Your task to perform on an android device: Open Google Maps Image 0: 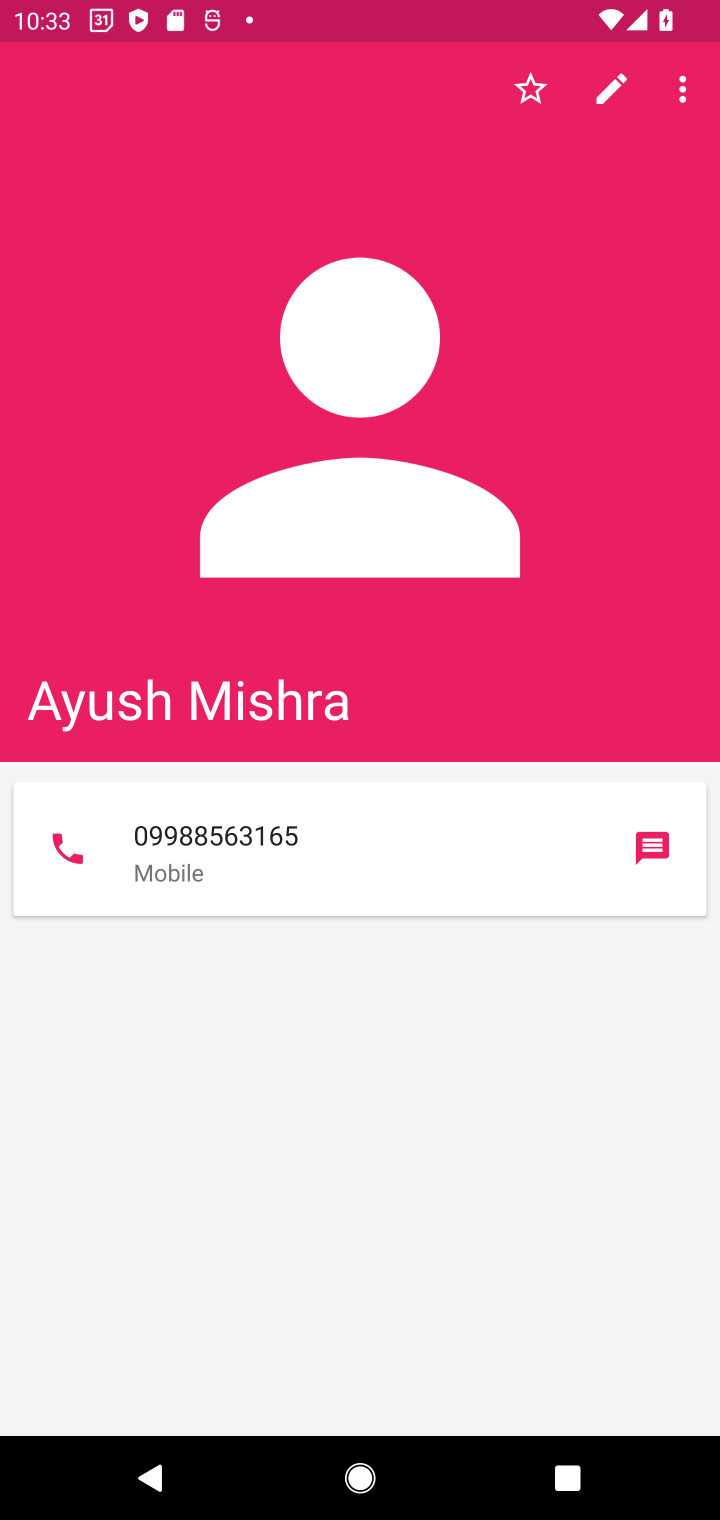
Step 0: press home button
Your task to perform on an android device: Open Google Maps Image 1: 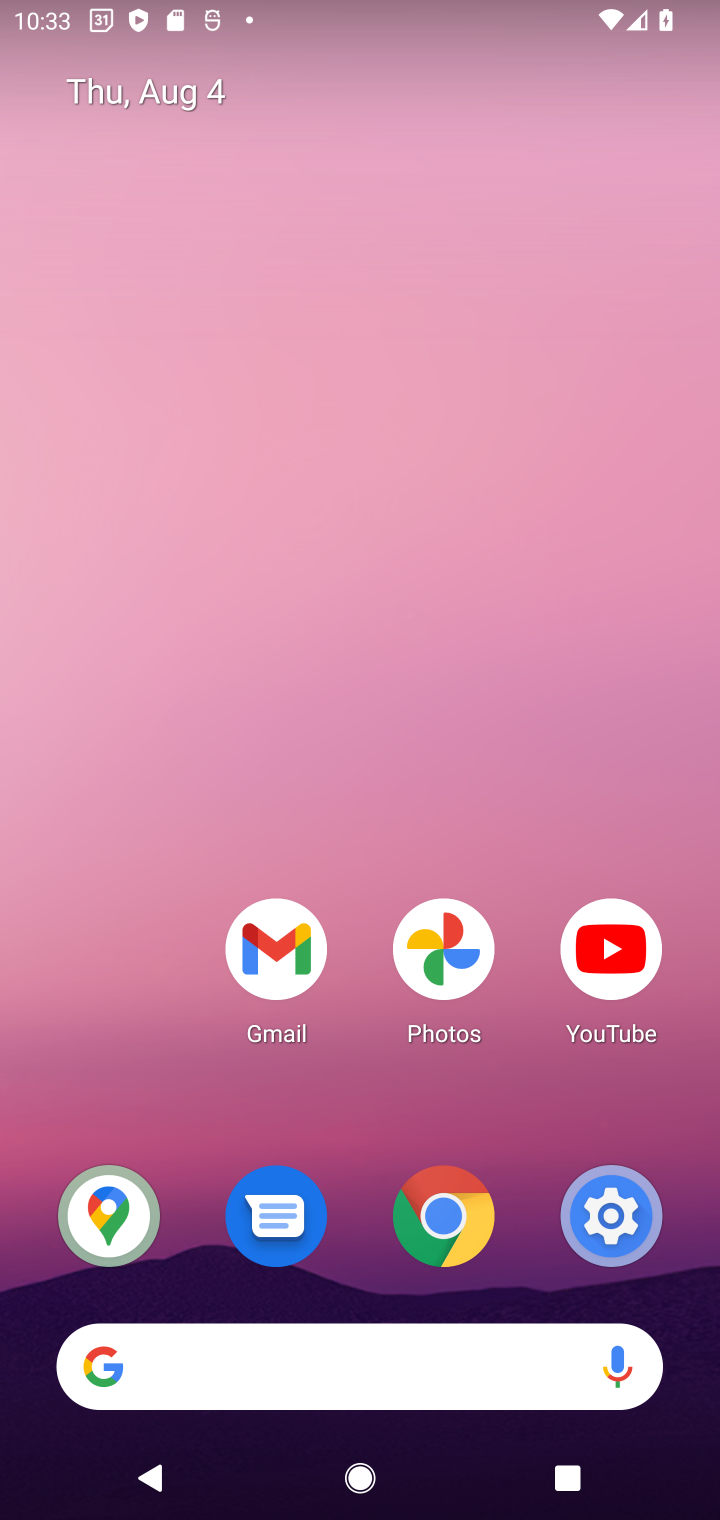
Step 1: click (106, 1204)
Your task to perform on an android device: Open Google Maps Image 2: 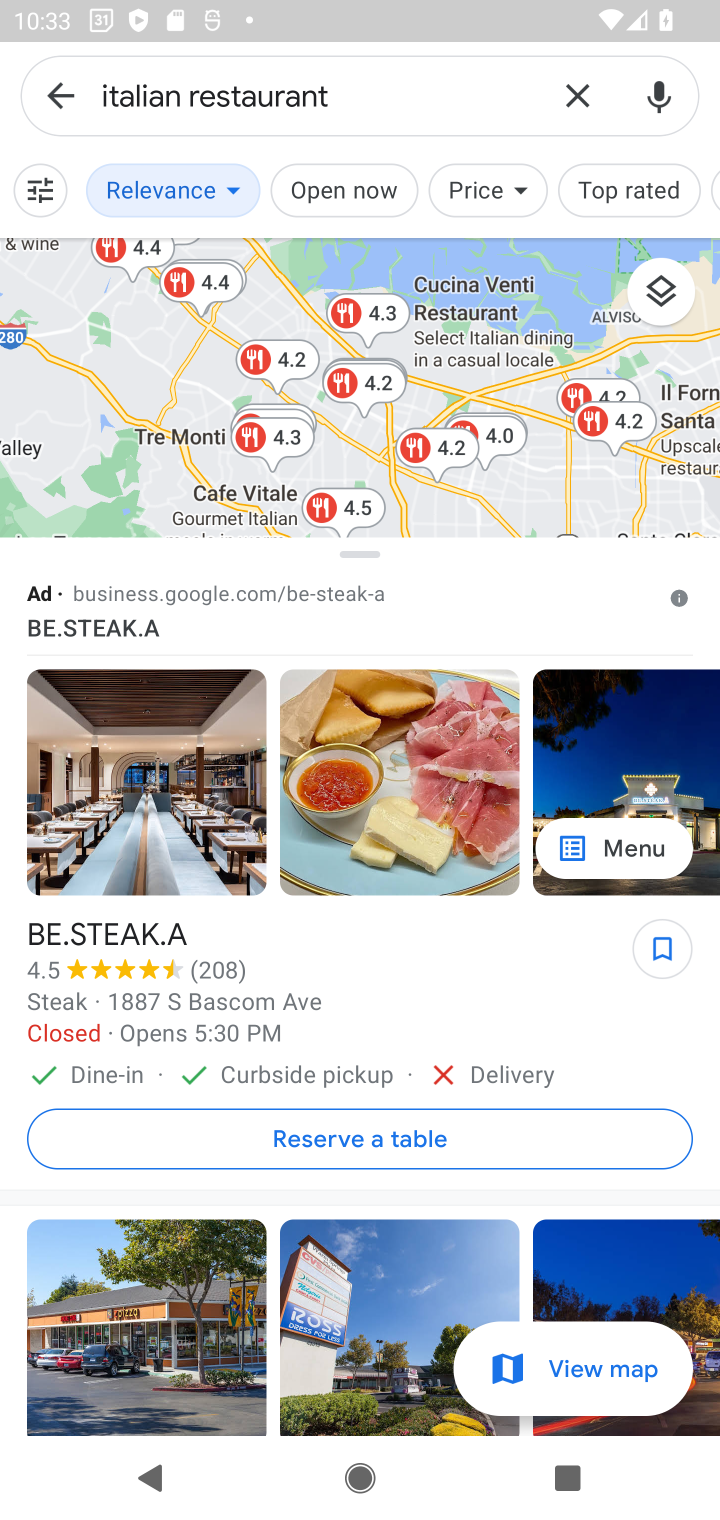
Step 2: click (577, 100)
Your task to perform on an android device: Open Google Maps Image 3: 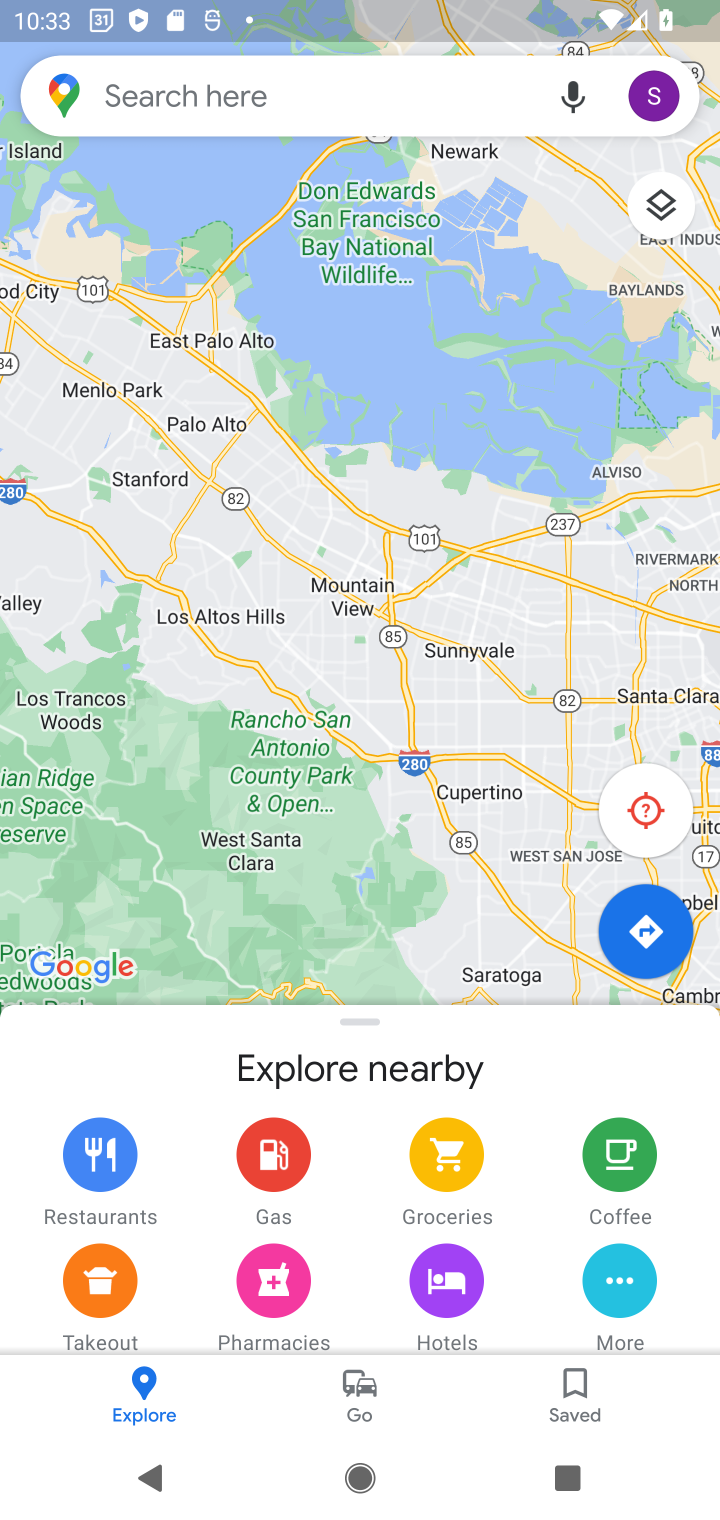
Step 3: task complete